Your task to perform on an android device: toggle pop-ups in chrome Image 0: 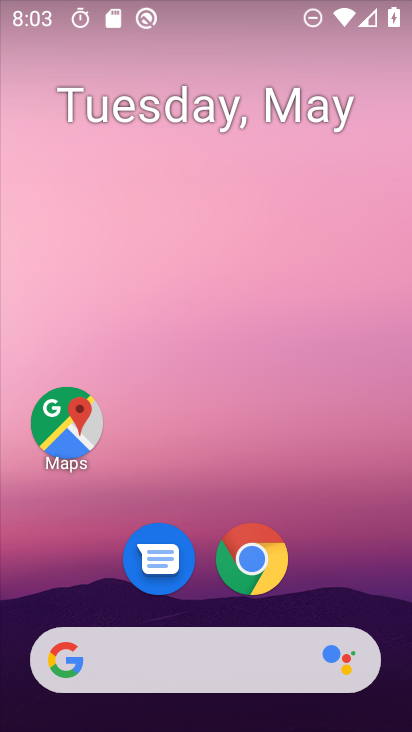
Step 0: drag from (385, 649) to (247, 51)
Your task to perform on an android device: toggle pop-ups in chrome Image 1: 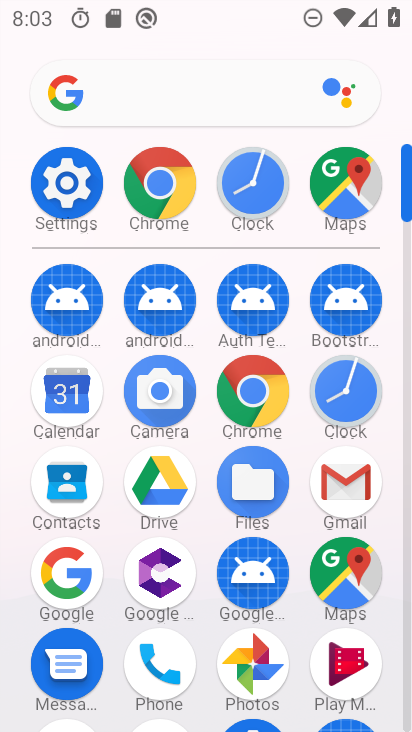
Step 1: click (257, 396)
Your task to perform on an android device: toggle pop-ups in chrome Image 2: 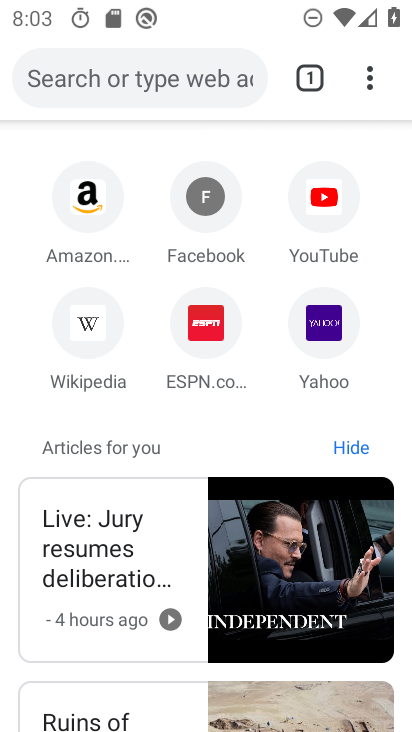
Step 2: click (378, 65)
Your task to perform on an android device: toggle pop-ups in chrome Image 3: 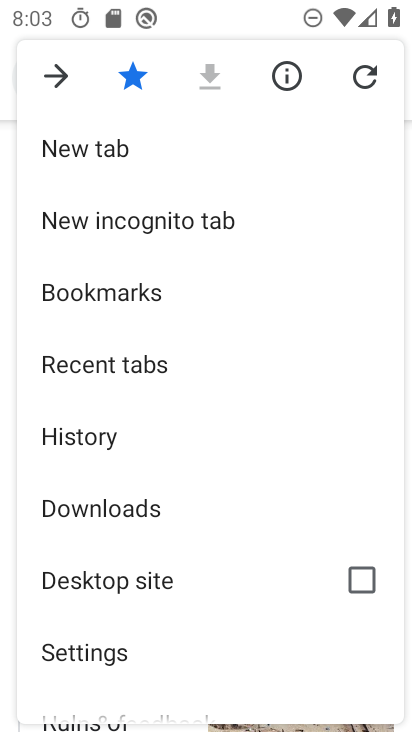
Step 3: click (112, 655)
Your task to perform on an android device: toggle pop-ups in chrome Image 4: 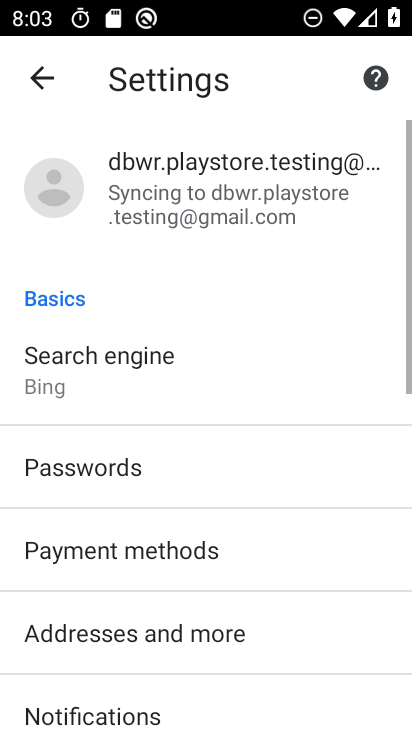
Step 4: drag from (112, 655) to (179, 102)
Your task to perform on an android device: toggle pop-ups in chrome Image 5: 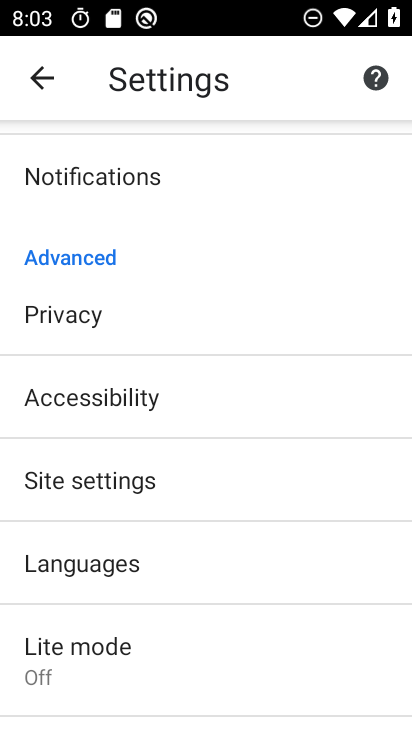
Step 5: click (143, 497)
Your task to perform on an android device: toggle pop-ups in chrome Image 6: 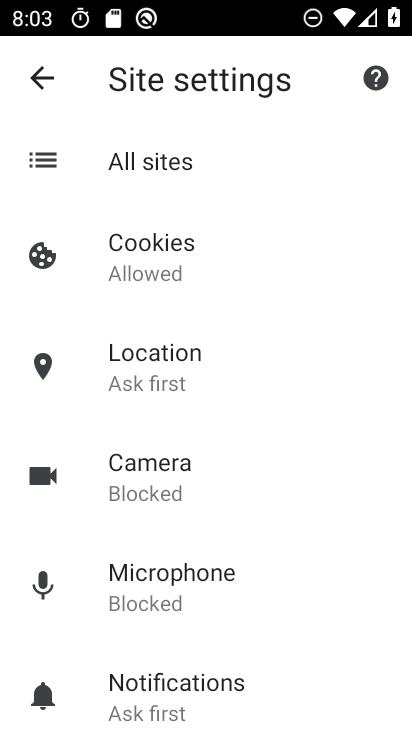
Step 6: drag from (189, 627) to (241, 154)
Your task to perform on an android device: toggle pop-ups in chrome Image 7: 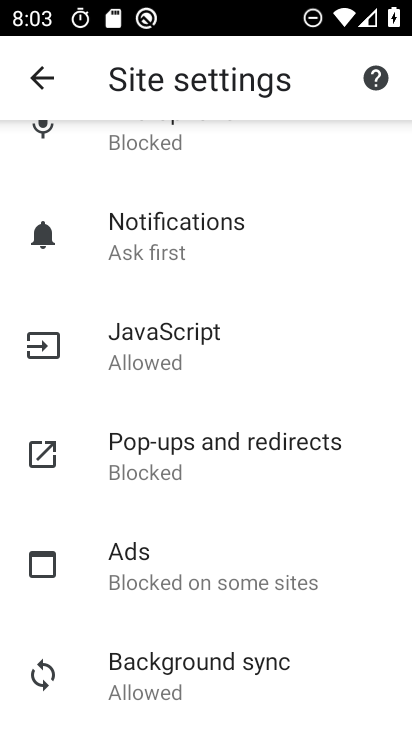
Step 7: click (159, 483)
Your task to perform on an android device: toggle pop-ups in chrome Image 8: 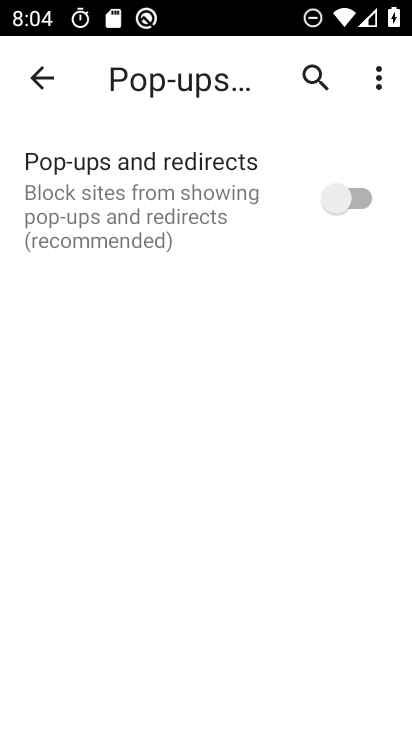
Step 8: click (354, 216)
Your task to perform on an android device: toggle pop-ups in chrome Image 9: 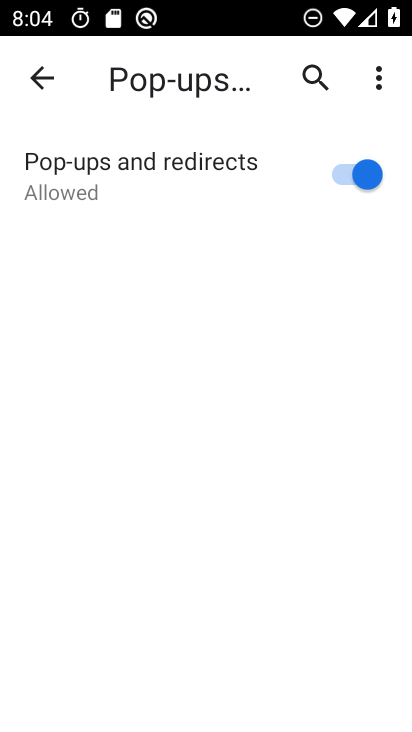
Step 9: task complete